Your task to perform on an android device: Go to privacy settings Image 0: 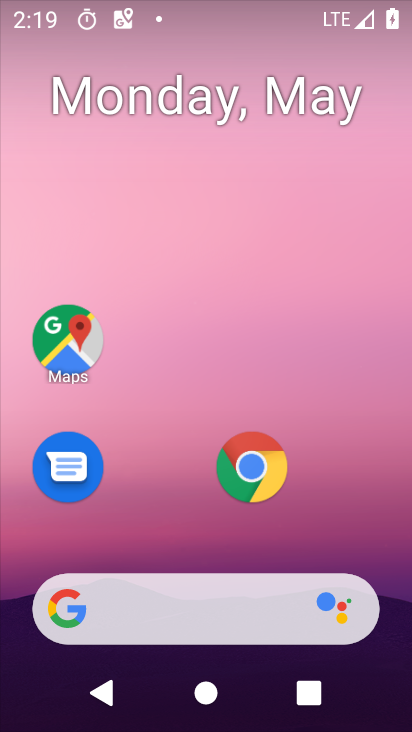
Step 0: drag from (204, 514) to (135, 26)
Your task to perform on an android device: Go to privacy settings Image 1: 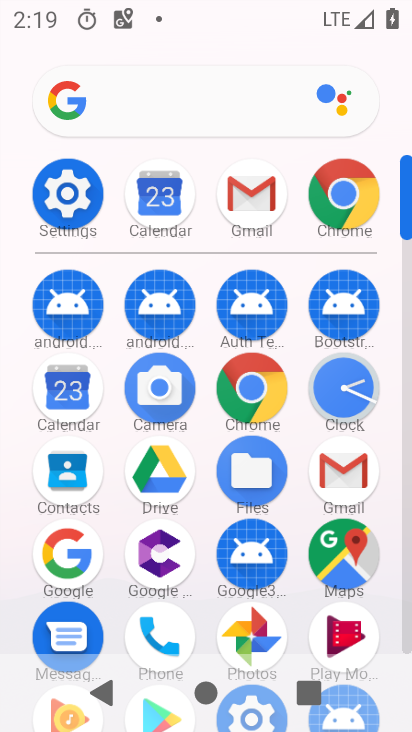
Step 1: click (67, 208)
Your task to perform on an android device: Go to privacy settings Image 2: 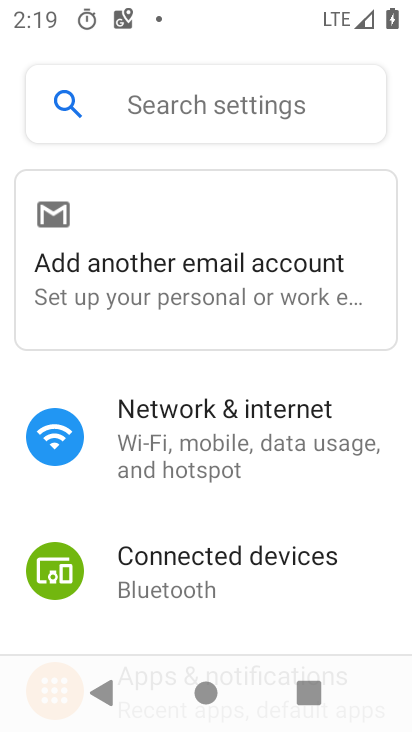
Step 2: drag from (200, 485) to (263, 0)
Your task to perform on an android device: Go to privacy settings Image 3: 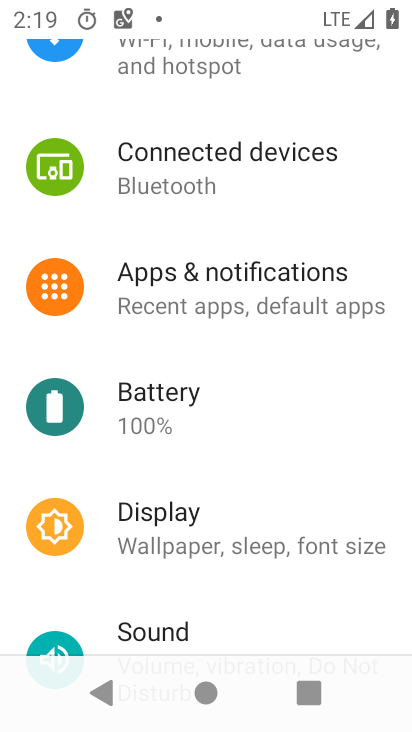
Step 3: drag from (225, 547) to (243, 63)
Your task to perform on an android device: Go to privacy settings Image 4: 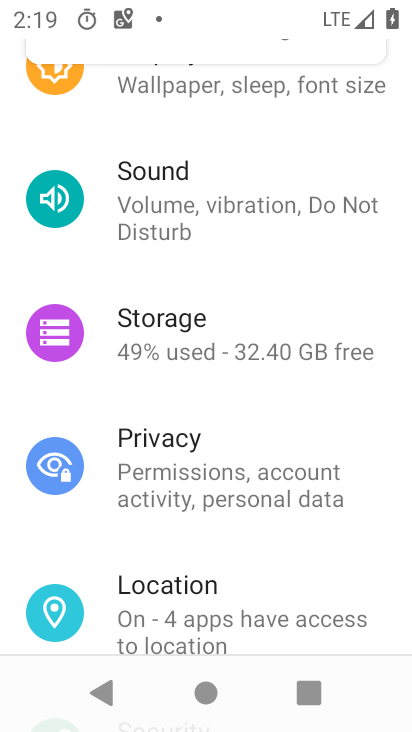
Step 4: click (198, 432)
Your task to perform on an android device: Go to privacy settings Image 5: 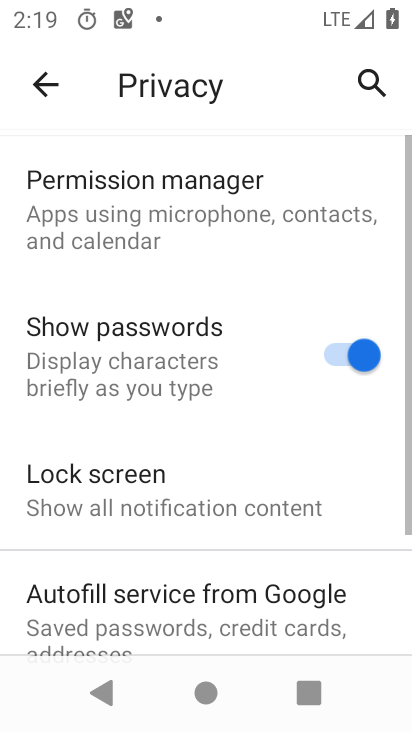
Step 5: drag from (251, 486) to (343, 20)
Your task to perform on an android device: Go to privacy settings Image 6: 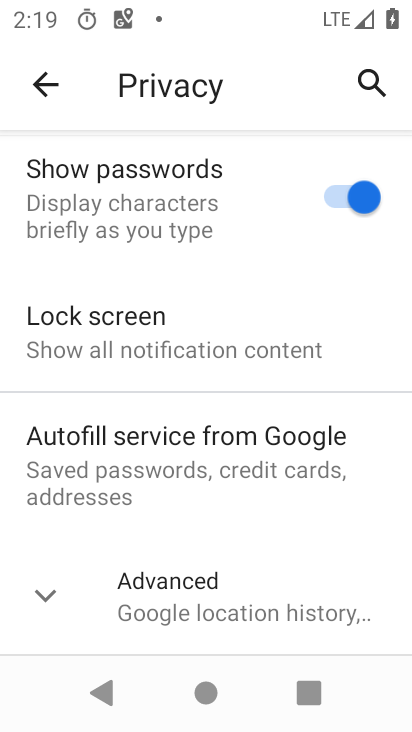
Step 6: drag from (224, 518) to (316, 166)
Your task to perform on an android device: Go to privacy settings Image 7: 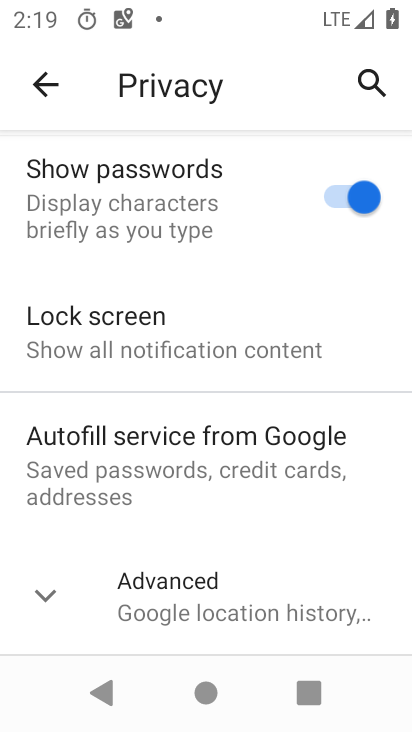
Step 7: click (203, 611)
Your task to perform on an android device: Go to privacy settings Image 8: 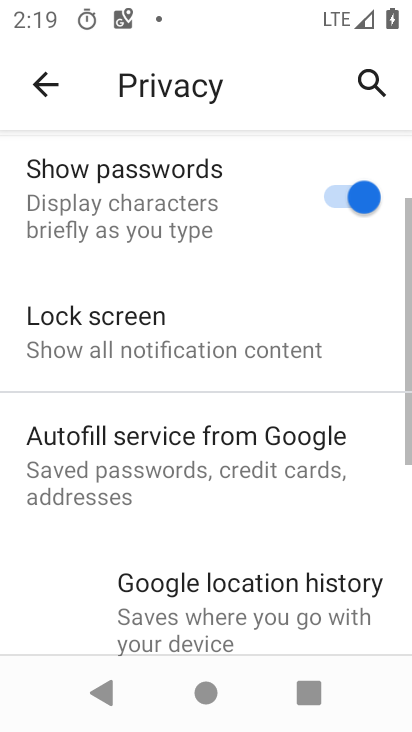
Step 8: task complete